Your task to perform on an android device: set an alarm Image 0: 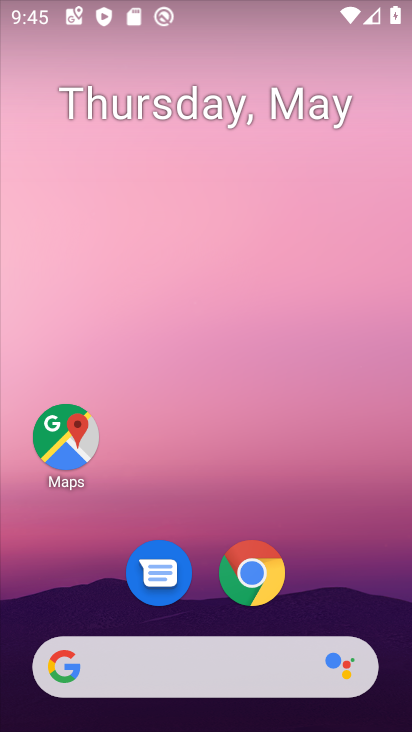
Step 0: drag from (199, 613) to (219, 215)
Your task to perform on an android device: set an alarm Image 1: 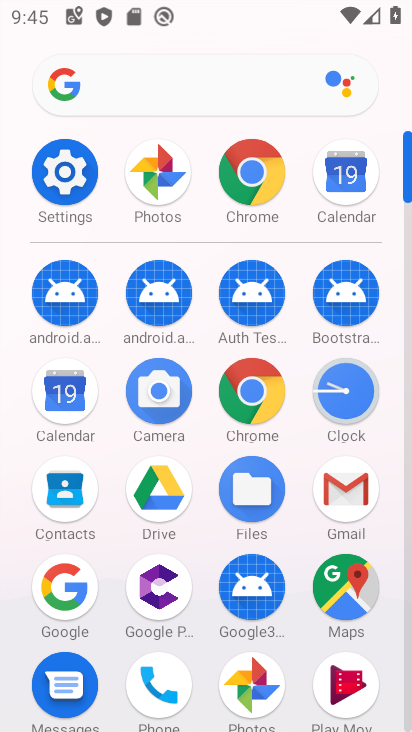
Step 1: click (325, 412)
Your task to perform on an android device: set an alarm Image 2: 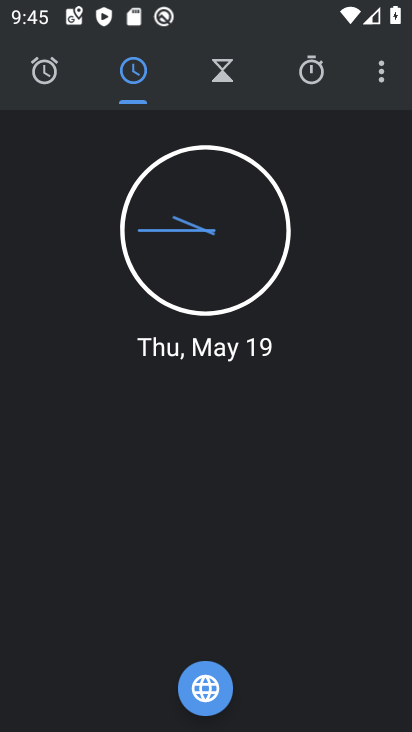
Step 2: click (47, 90)
Your task to perform on an android device: set an alarm Image 3: 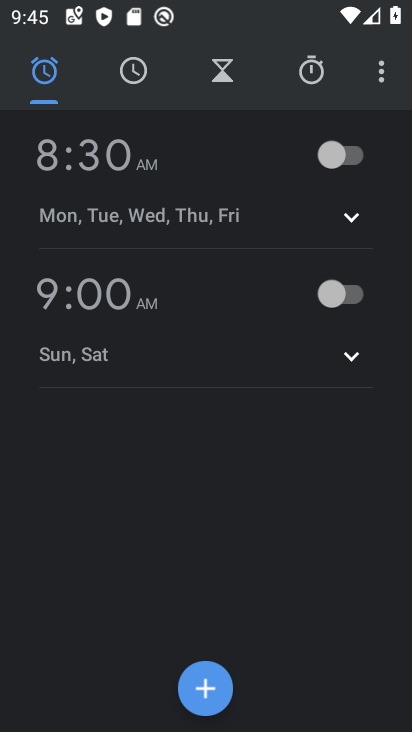
Step 3: click (345, 164)
Your task to perform on an android device: set an alarm Image 4: 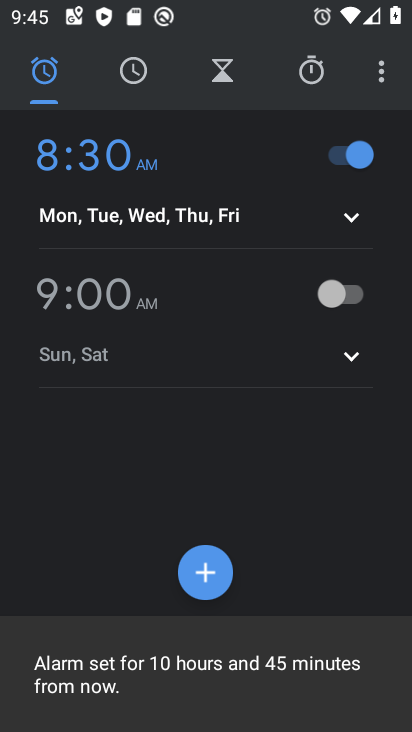
Step 4: task complete